Your task to perform on an android device: check android version Image 0: 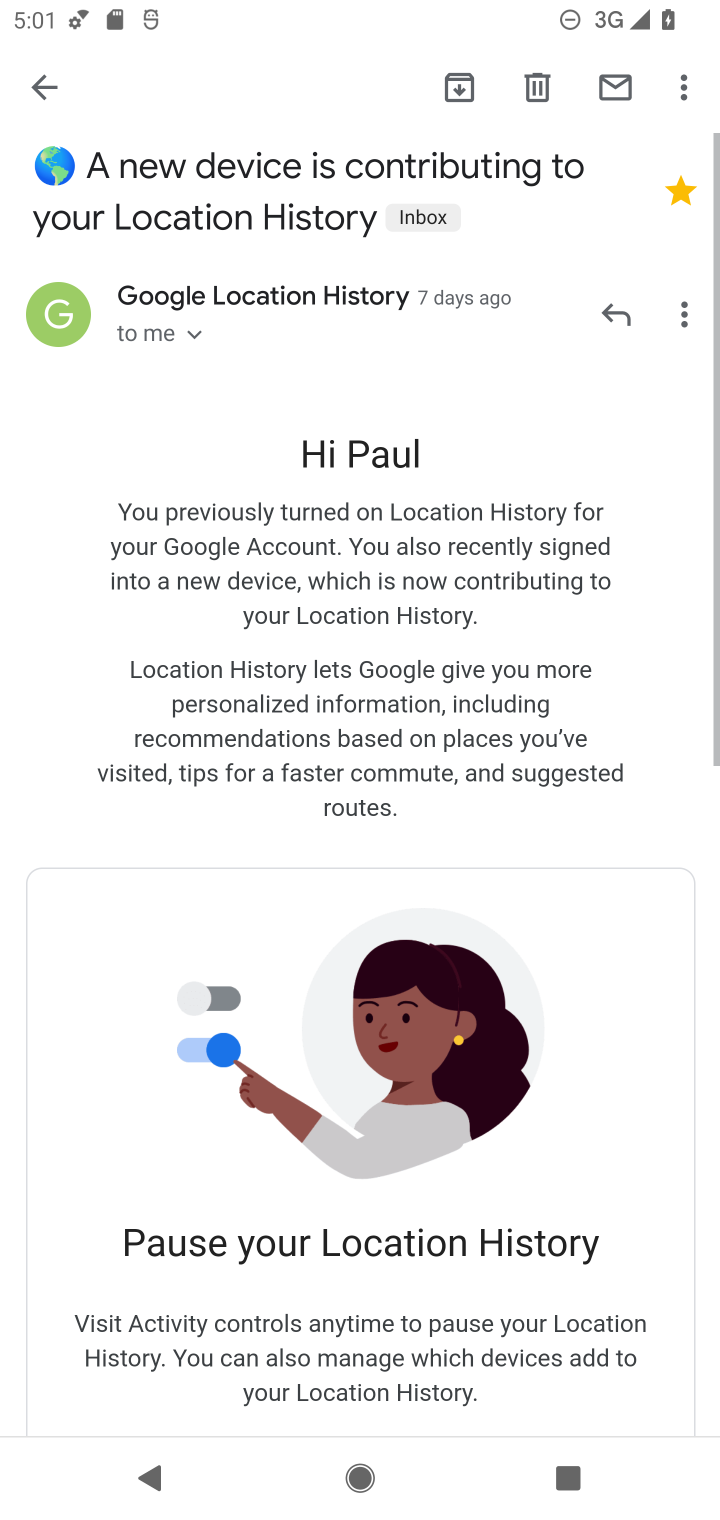
Step 0: press home button
Your task to perform on an android device: check android version Image 1: 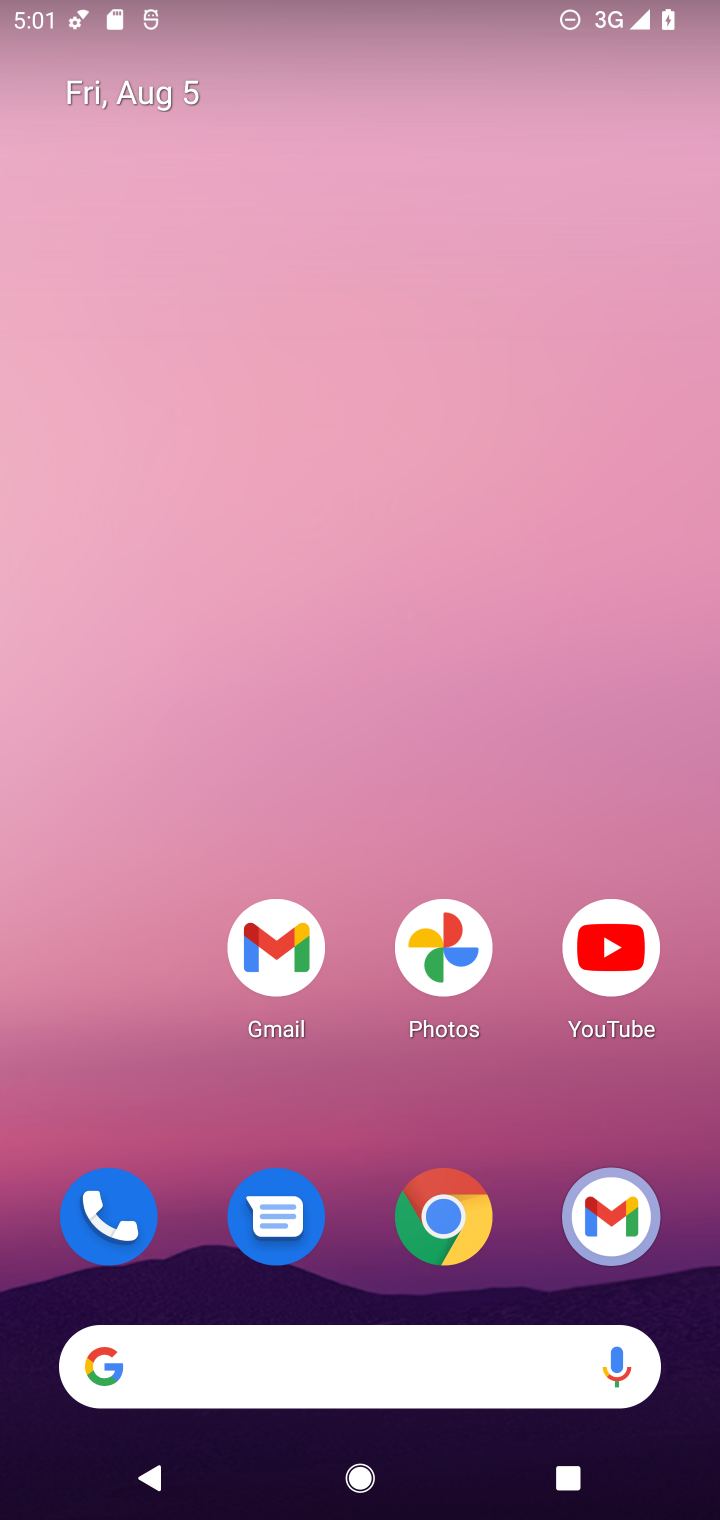
Step 1: drag from (359, 1140) to (239, 198)
Your task to perform on an android device: check android version Image 2: 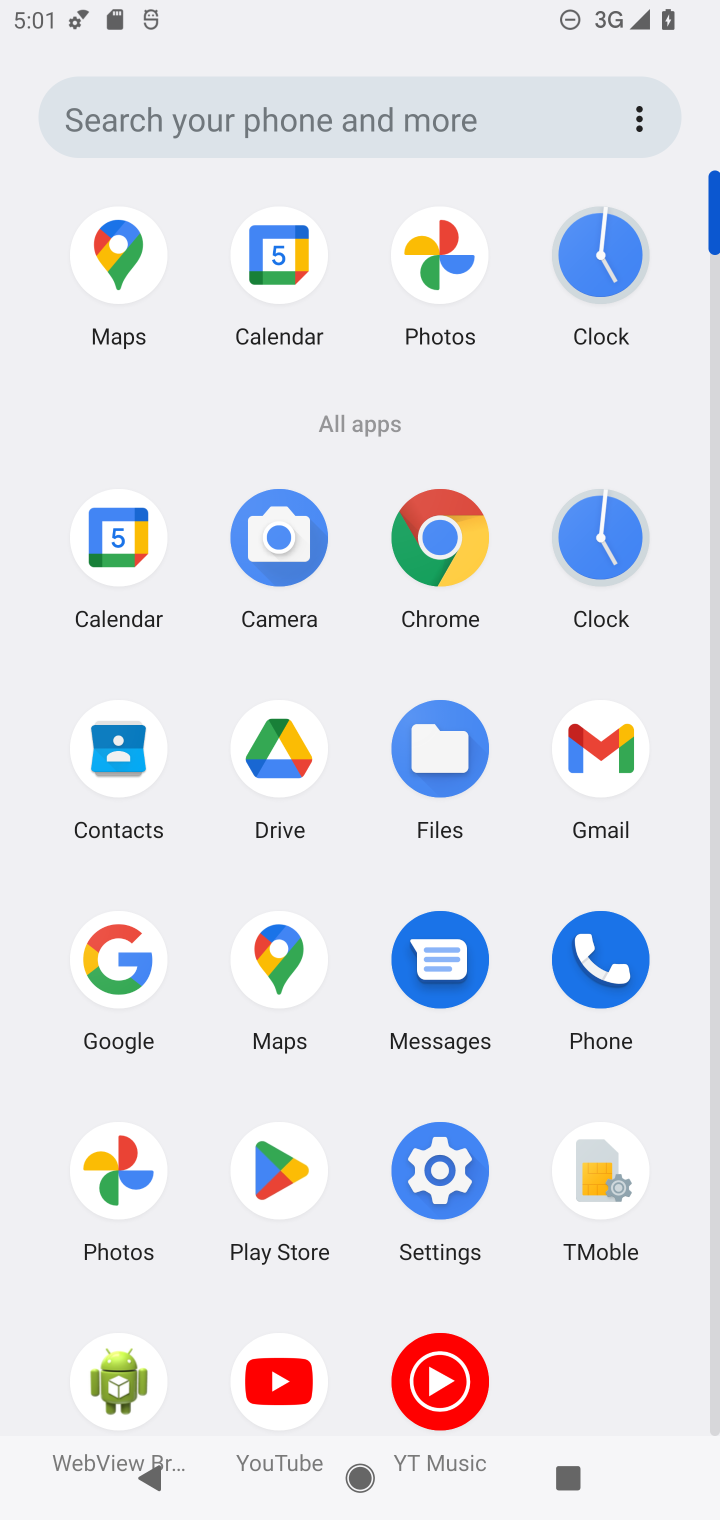
Step 2: click (443, 1148)
Your task to perform on an android device: check android version Image 3: 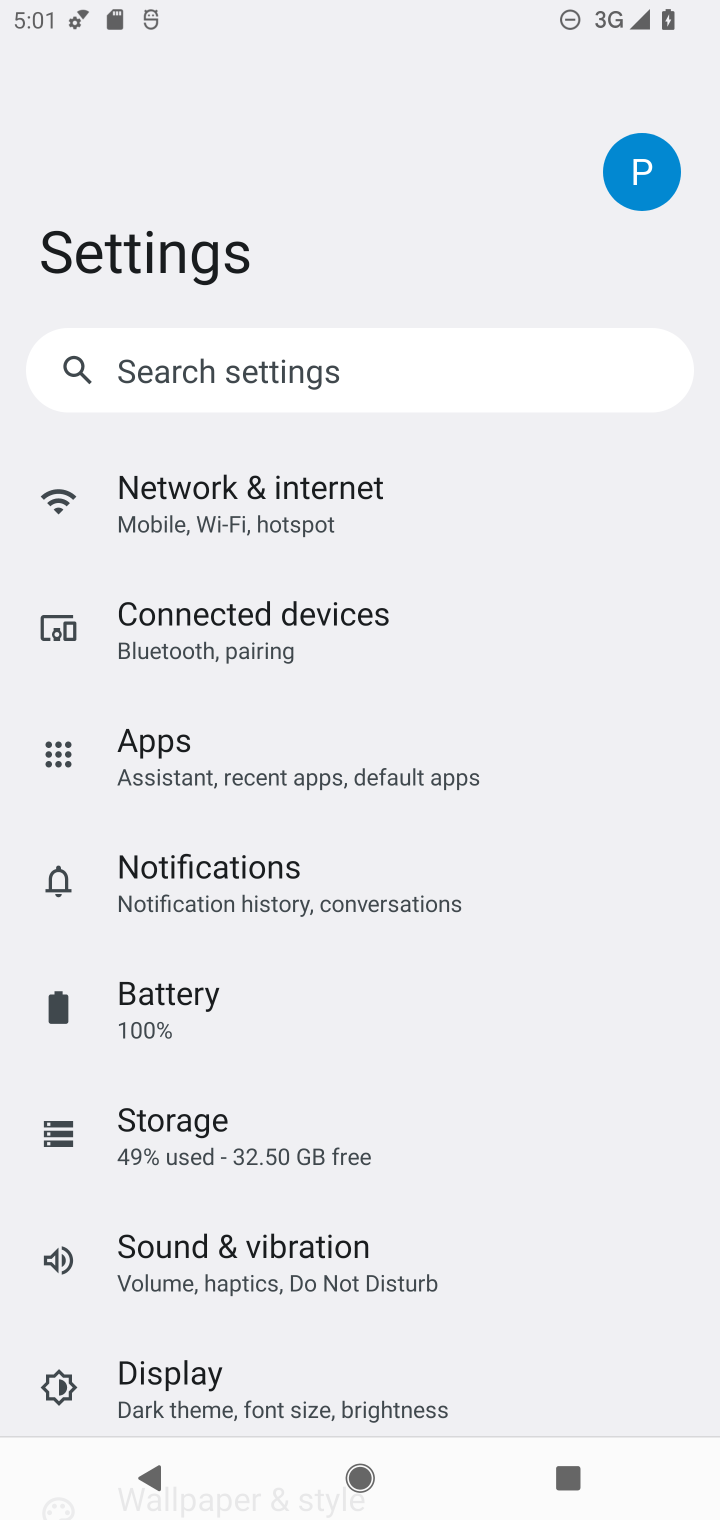
Step 3: drag from (294, 1256) to (369, 12)
Your task to perform on an android device: check android version Image 4: 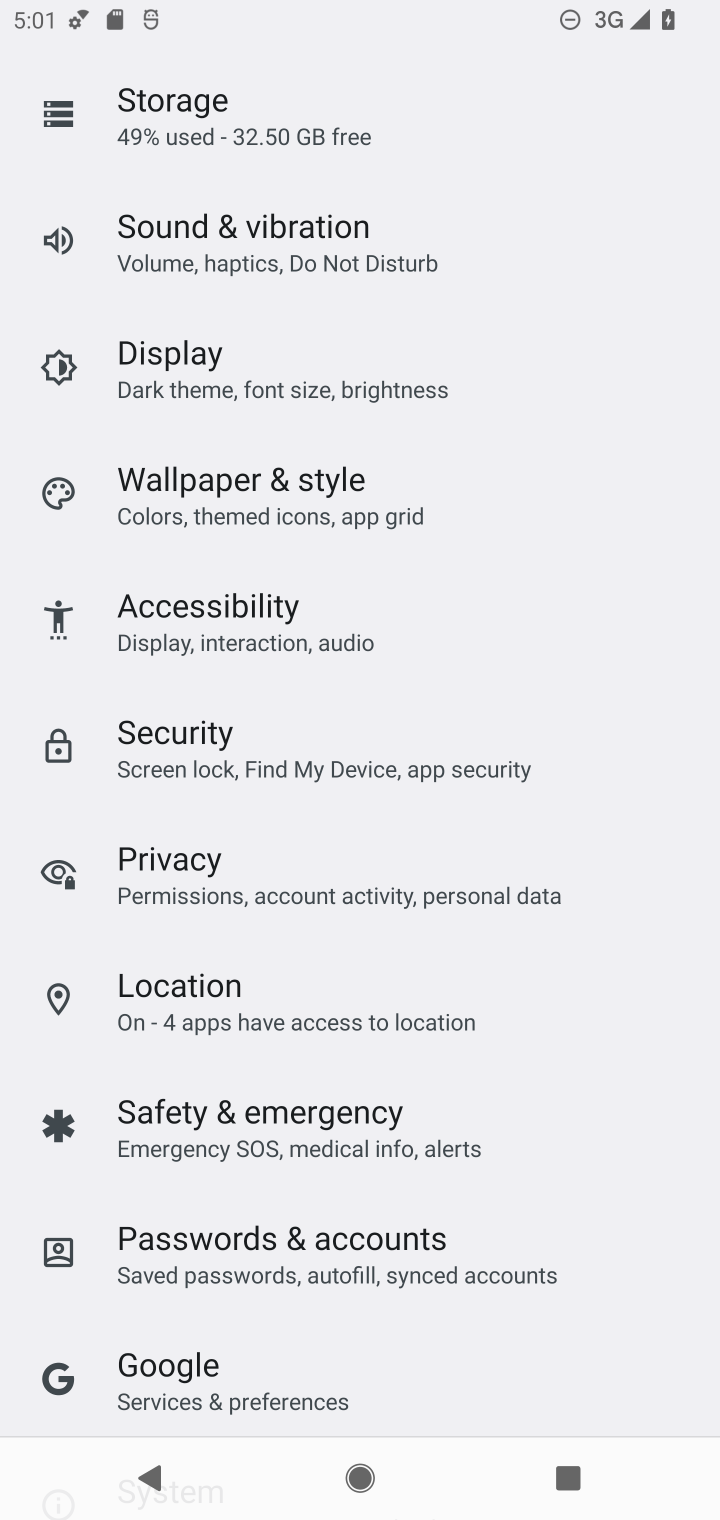
Step 4: drag from (303, 987) to (307, 278)
Your task to perform on an android device: check android version Image 5: 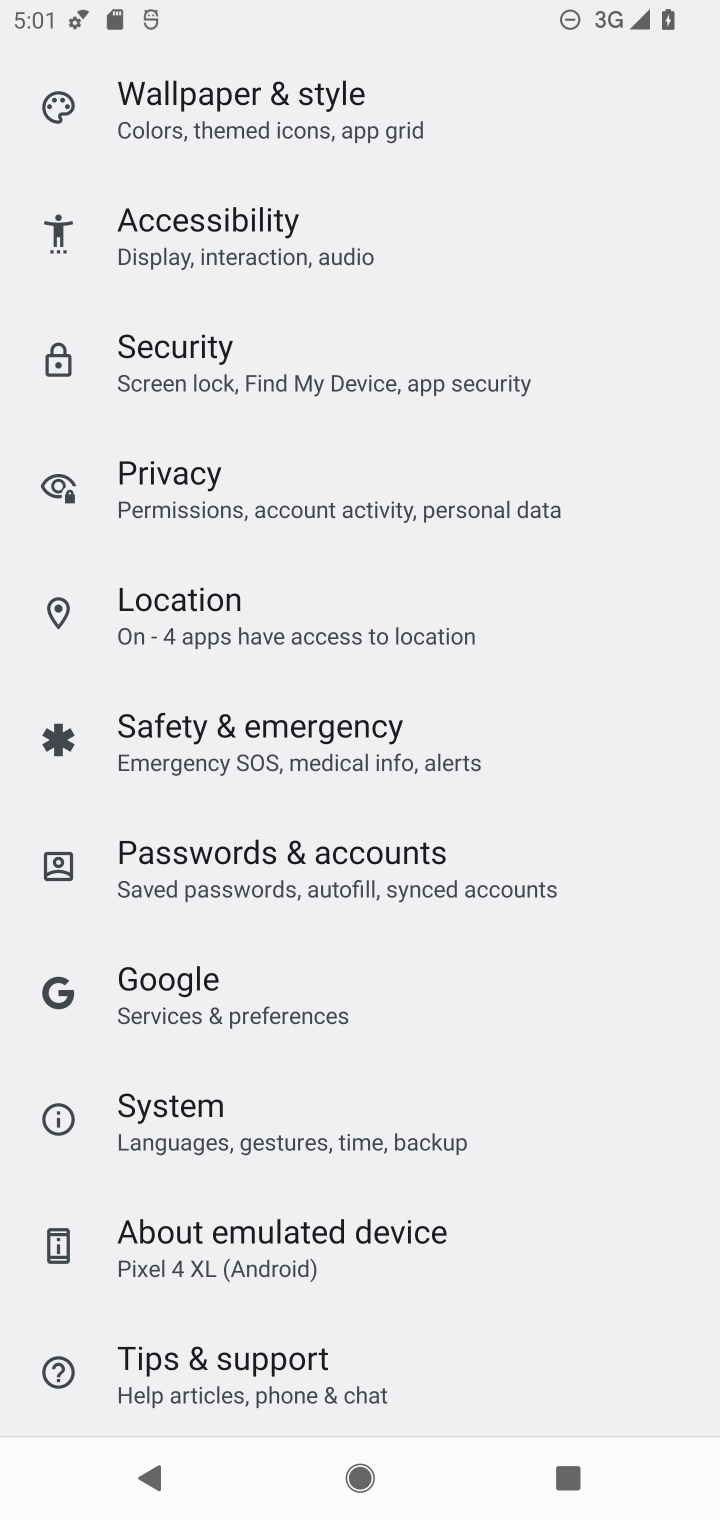
Step 5: click (318, 1227)
Your task to perform on an android device: check android version Image 6: 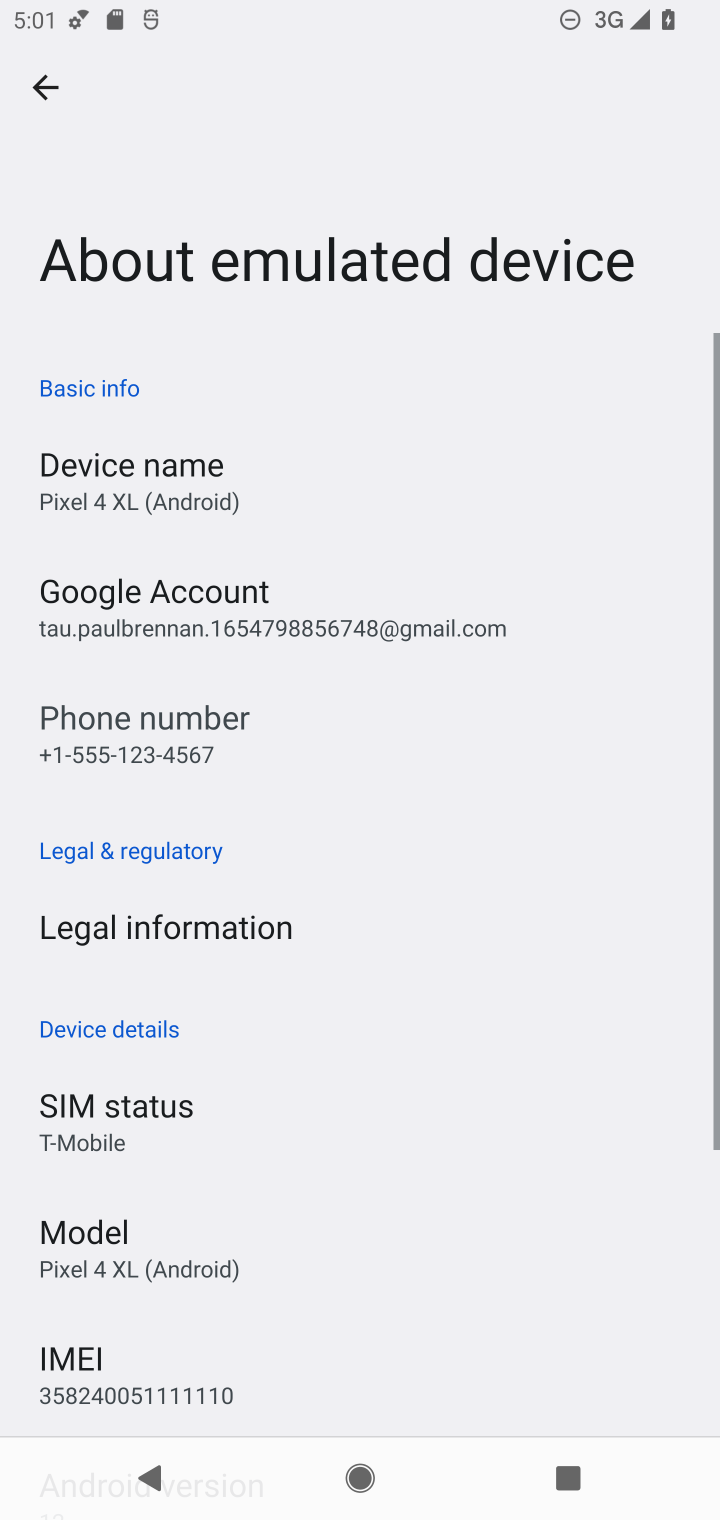
Step 6: drag from (281, 1257) to (281, 625)
Your task to perform on an android device: check android version Image 7: 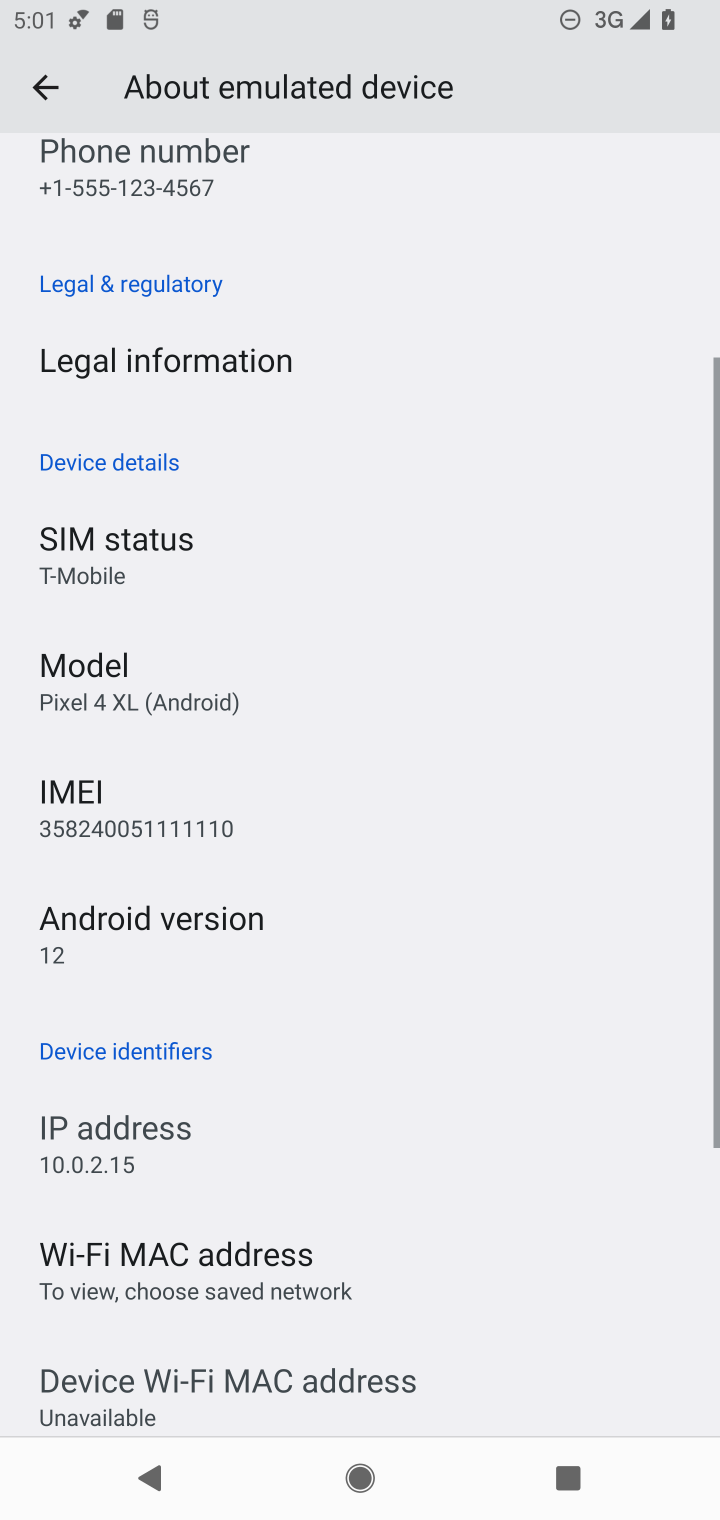
Step 7: click (308, 914)
Your task to perform on an android device: check android version Image 8: 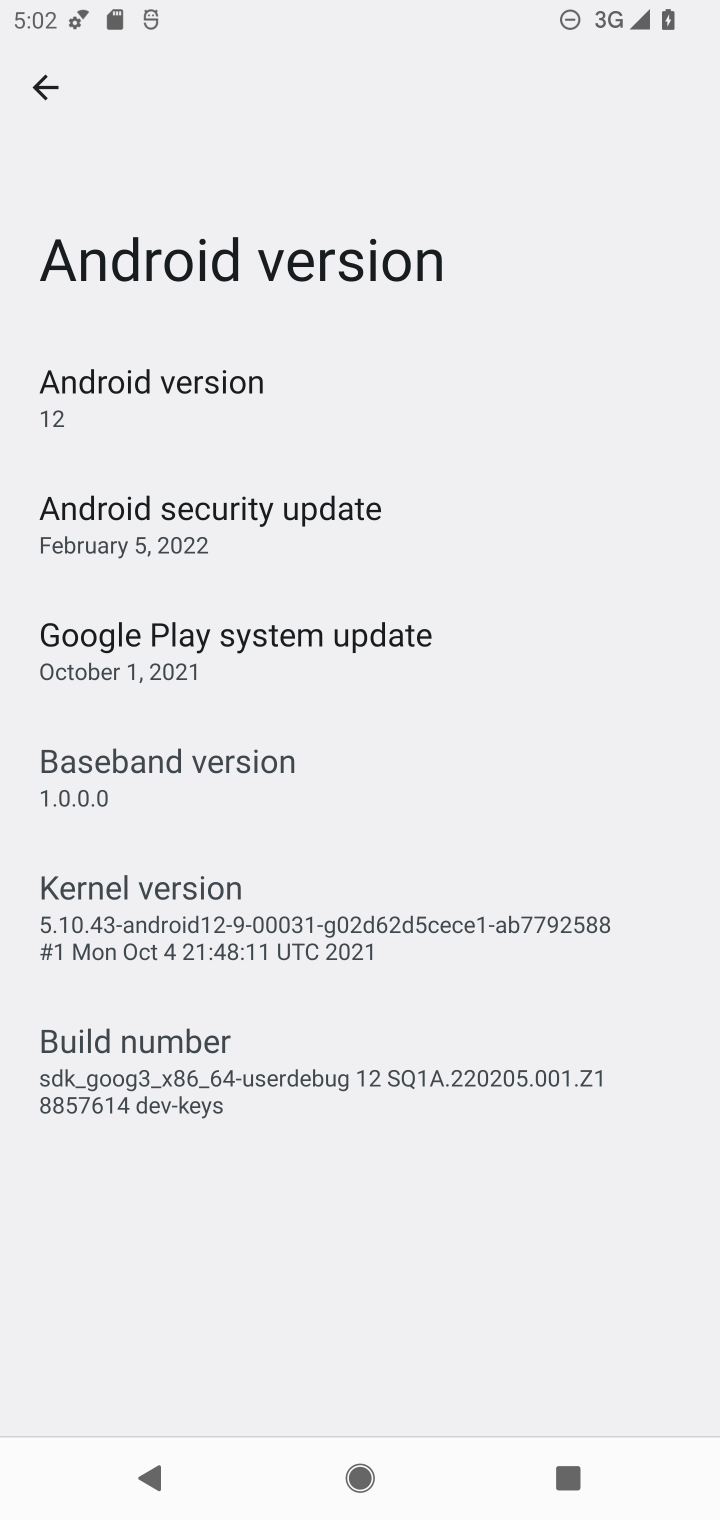
Step 8: task complete